Your task to perform on an android device: Go to privacy settings Image 0: 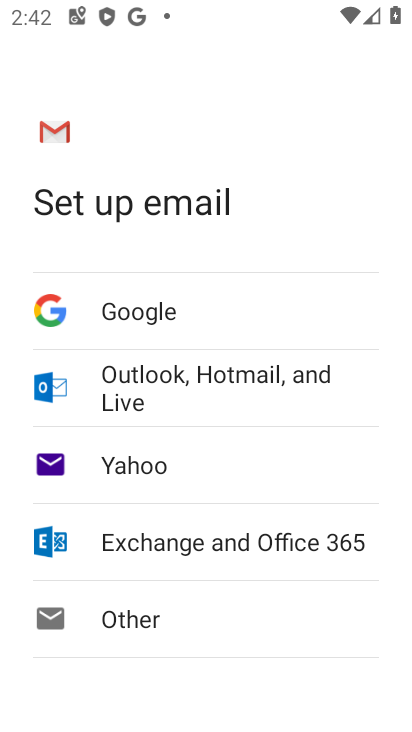
Step 0: press home button
Your task to perform on an android device: Go to privacy settings Image 1: 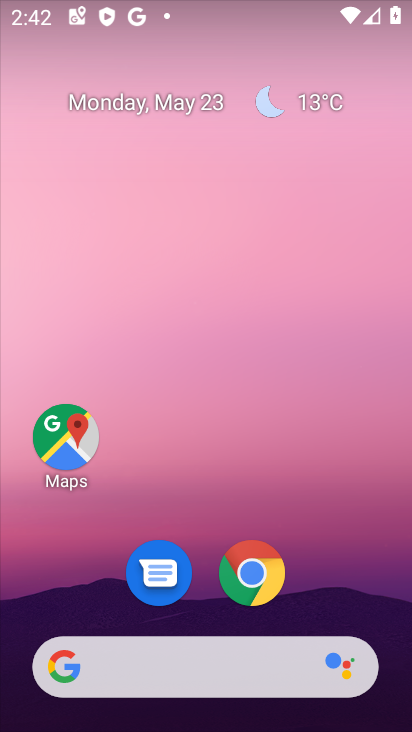
Step 1: drag from (325, 603) to (269, 276)
Your task to perform on an android device: Go to privacy settings Image 2: 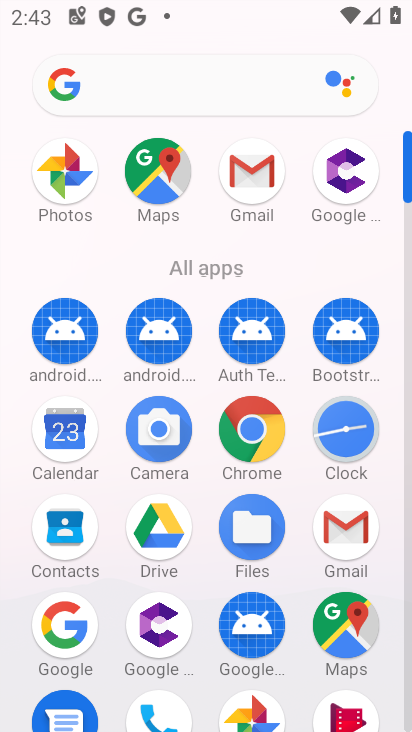
Step 2: click (403, 608)
Your task to perform on an android device: Go to privacy settings Image 3: 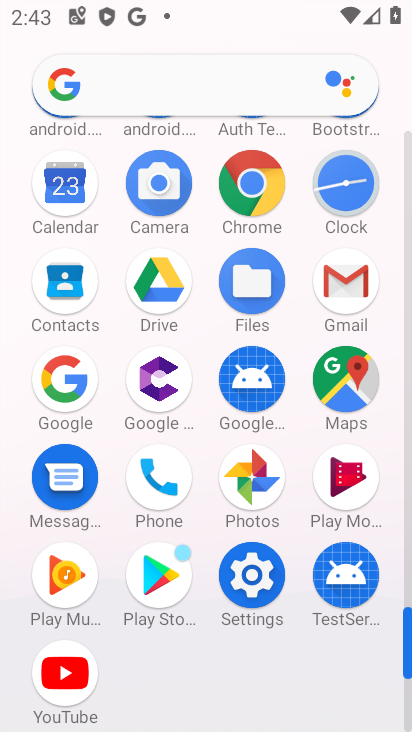
Step 3: click (408, 615)
Your task to perform on an android device: Go to privacy settings Image 4: 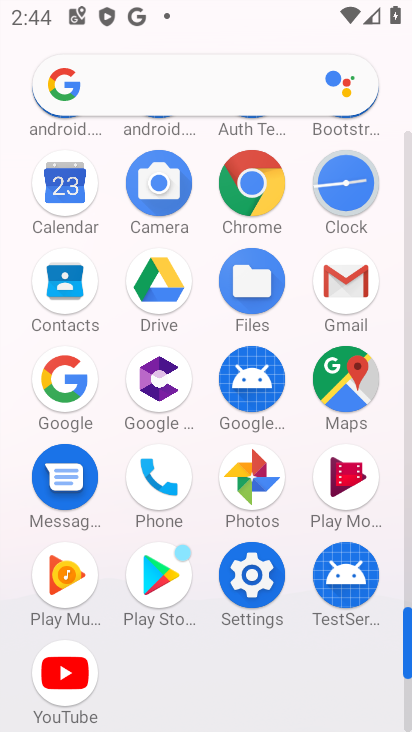
Step 4: click (263, 581)
Your task to perform on an android device: Go to privacy settings Image 5: 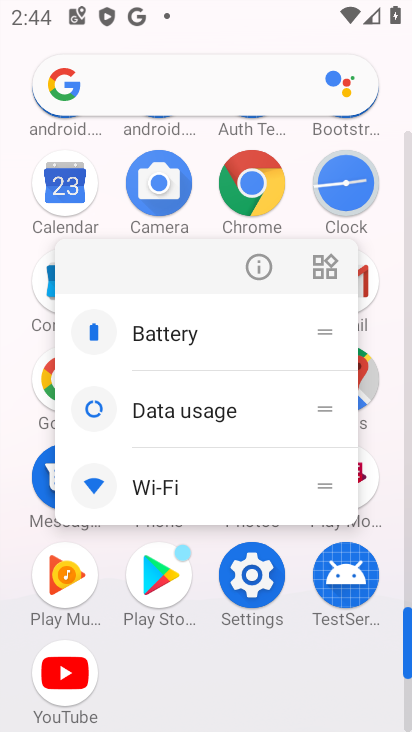
Step 5: click (258, 581)
Your task to perform on an android device: Go to privacy settings Image 6: 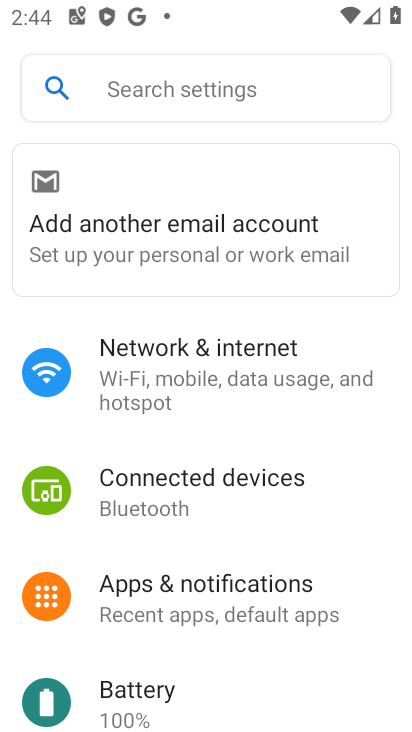
Step 6: drag from (189, 497) to (208, 253)
Your task to perform on an android device: Go to privacy settings Image 7: 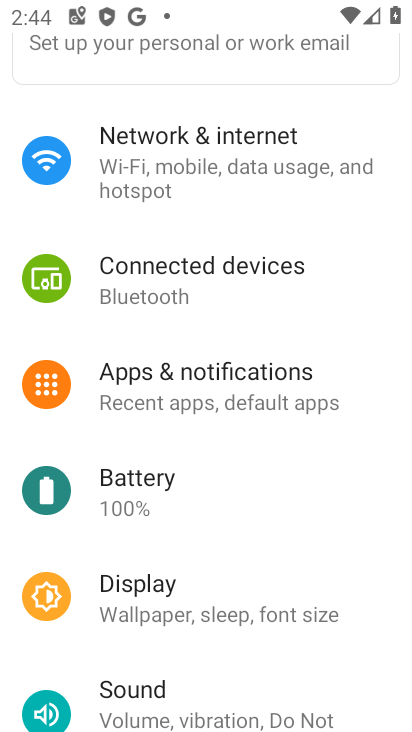
Step 7: drag from (175, 592) to (208, 354)
Your task to perform on an android device: Go to privacy settings Image 8: 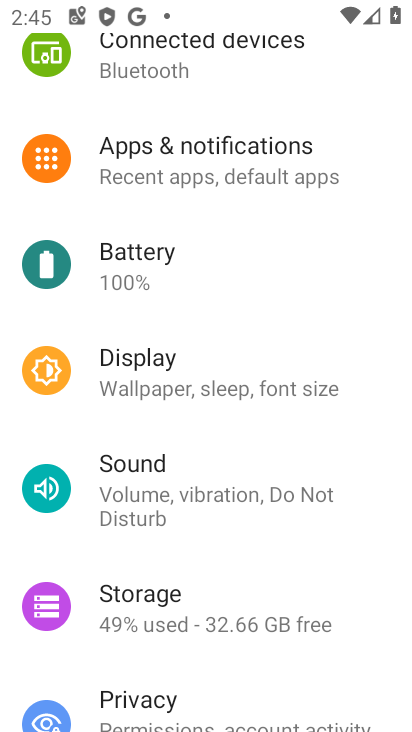
Step 8: drag from (142, 653) to (180, 442)
Your task to perform on an android device: Go to privacy settings Image 9: 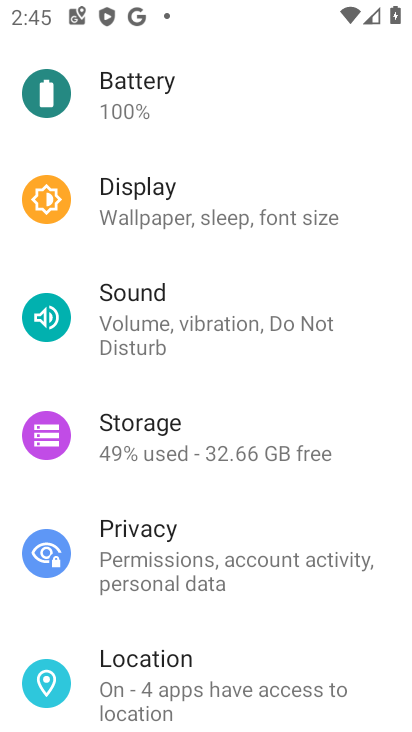
Step 9: click (159, 589)
Your task to perform on an android device: Go to privacy settings Image 10: 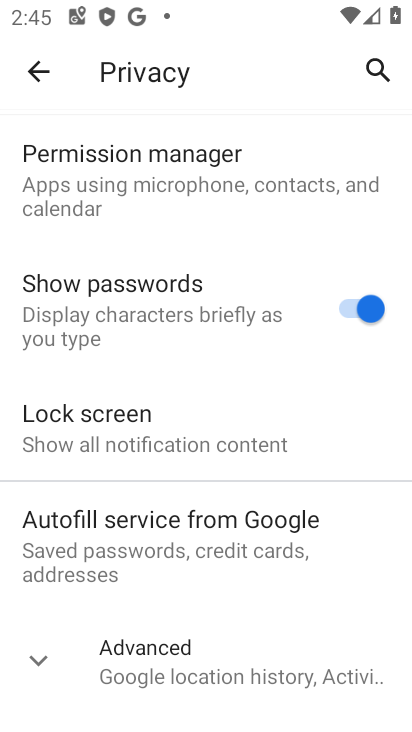
Step 10: task complete